Your task to perform on an android device: turn on sleep mode Image 0: 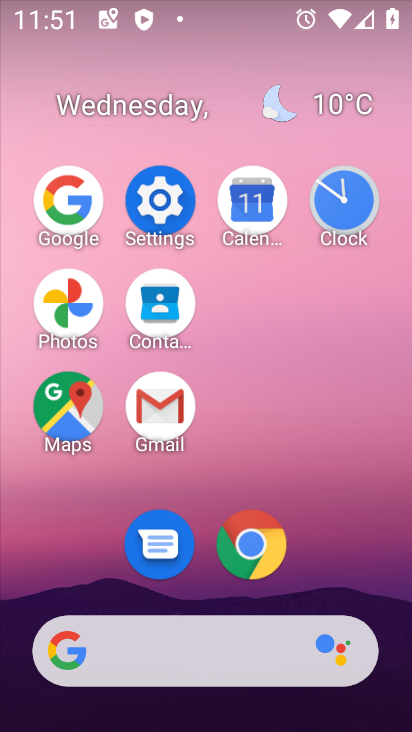
Step 0: click (167, 204)
Your task to perform on an android device: turn on sleep mode Image 1: 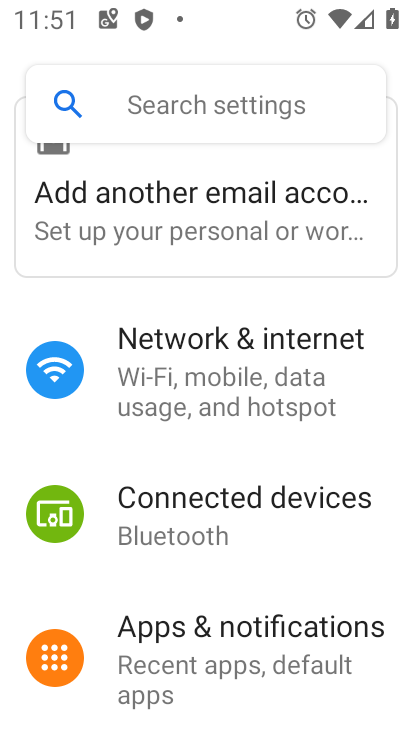
Step 1: drag from (232, 633) to (258, 270)
Your task to perform on an android device: turn on sleep mode Image 2: 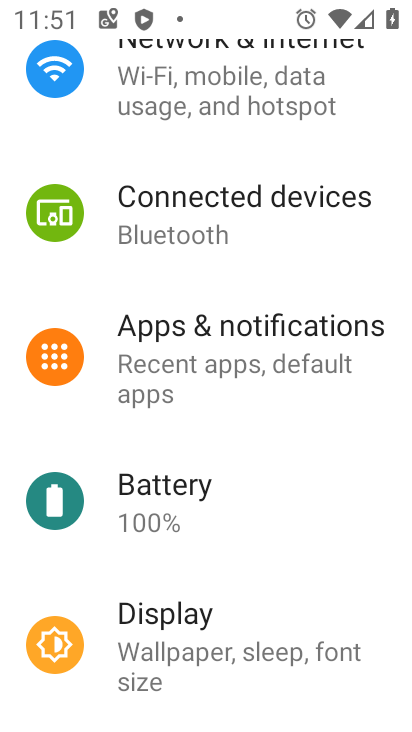
Step 2: drag from (271, 530) to (298, 286)
Your task to perform on an android device: turn on sleep mode Image 3: 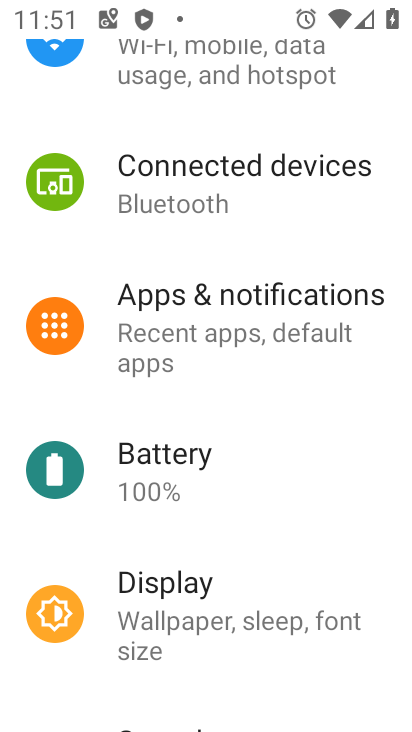
Step 3: click (245, 582)
Your task to perform on an android device: turn on sleep mode Image 4: 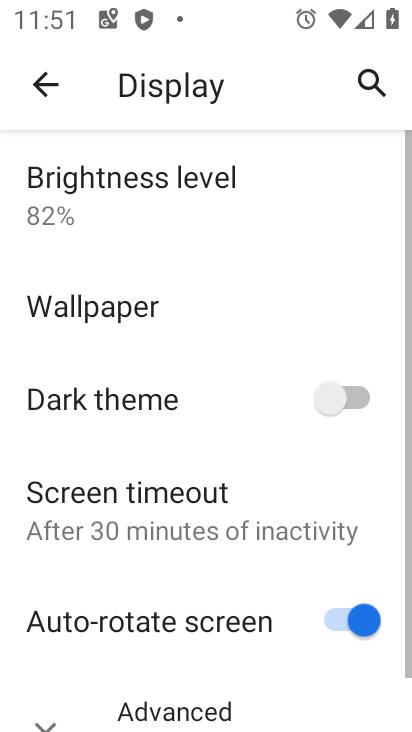
Step 4: click (246, 500)
Your task to perform on an android device: turn on sleep mode Image 5: 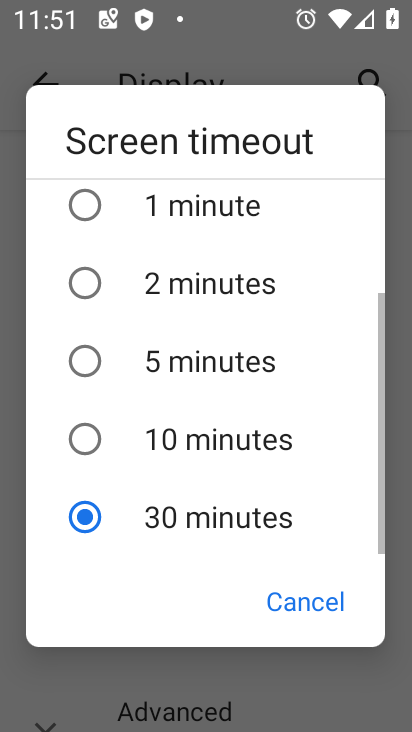
Step 5: task complete